Your task to perform on an android device: Open Google Maps Image 0: 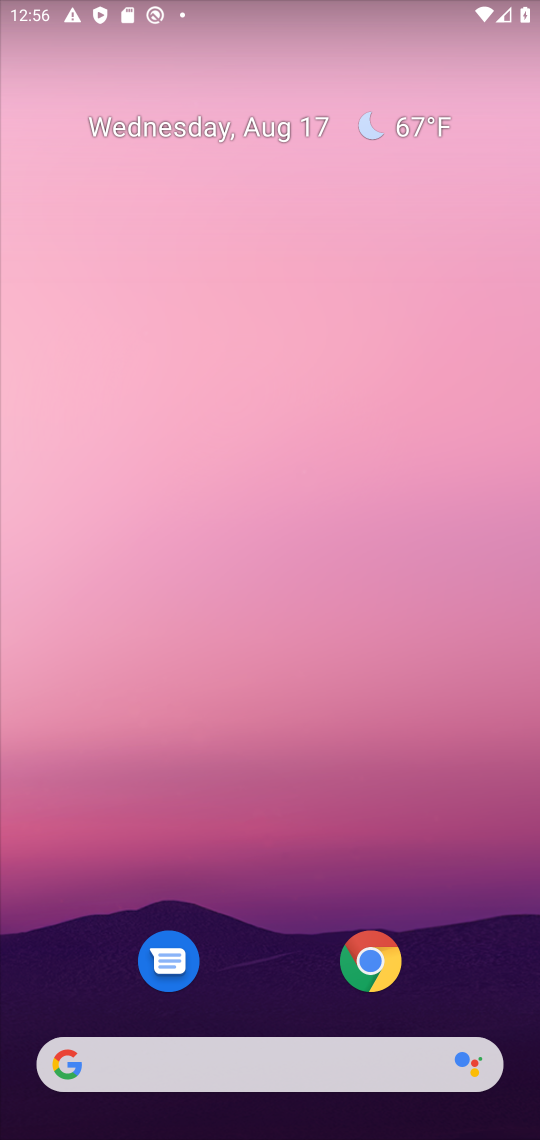
Step 0: drag from (326, 692) to (383, 308)
Your task to perform on an android device: Open Google Maps Image 1: 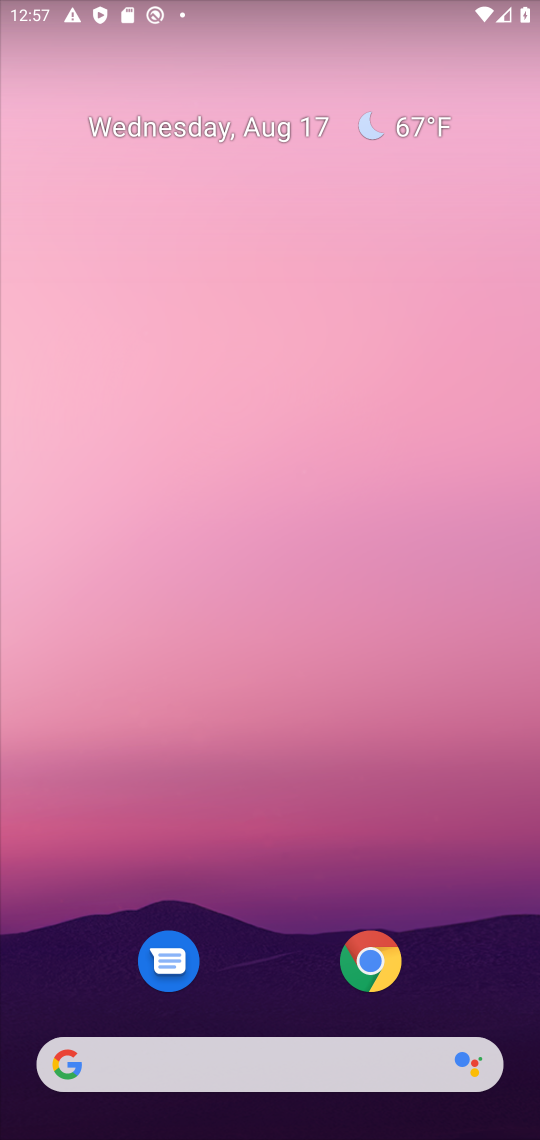
Step 1: drag from (182, 1075) to (214, 277)
Your task to perform on an android device: Open Google Maps Image 2: 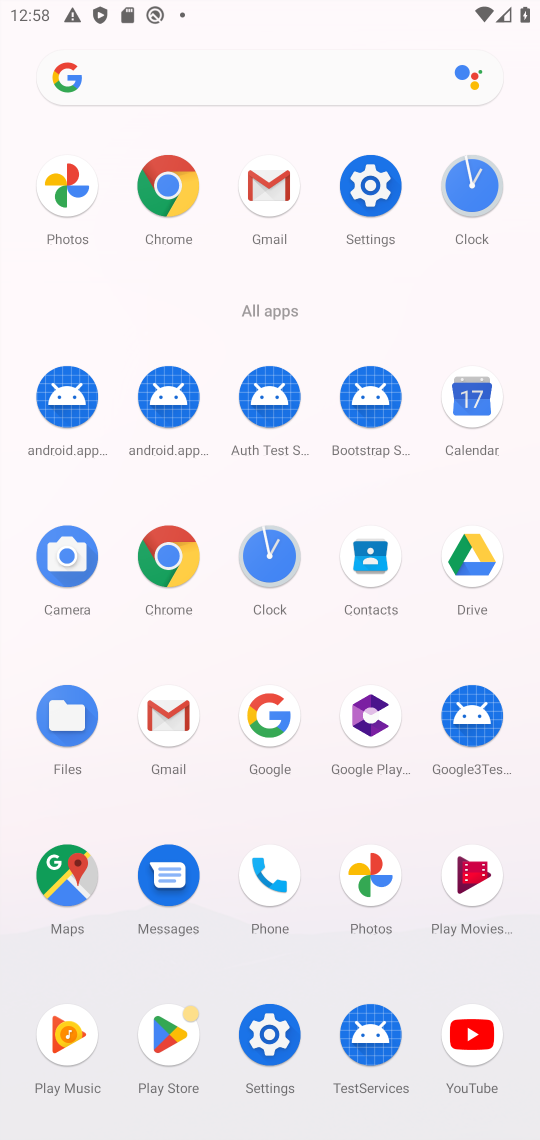
Step 2: click (65, 869)
Your task to perform on an android device: Open Google Maps Image 3: 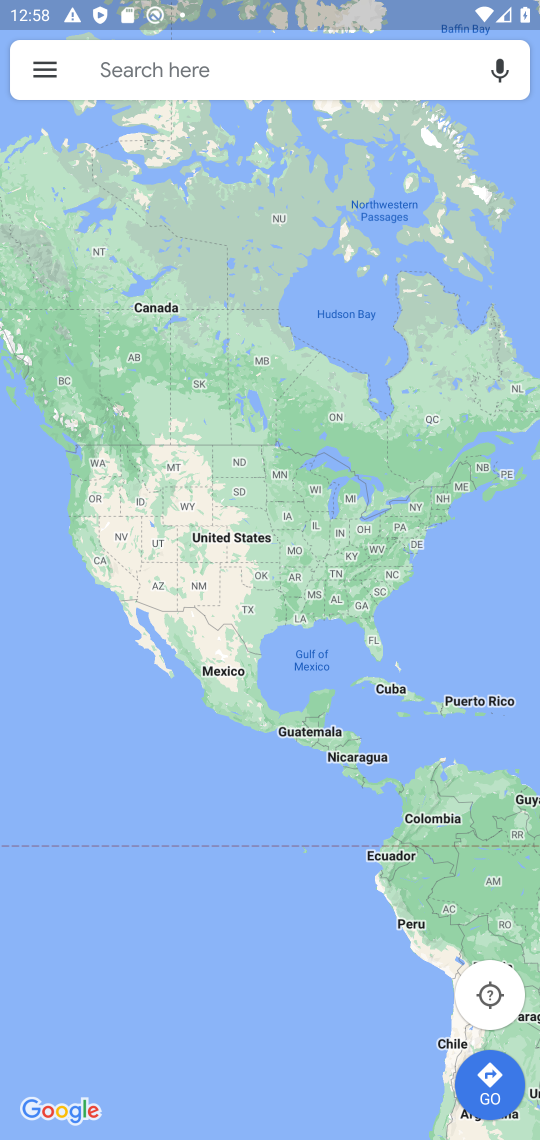
Step 3: task complete